Your task to perform on an android device: Search for "apple airpods pro" on target.com, select the first entry, add it to the cart, then select checkout. Image 0: 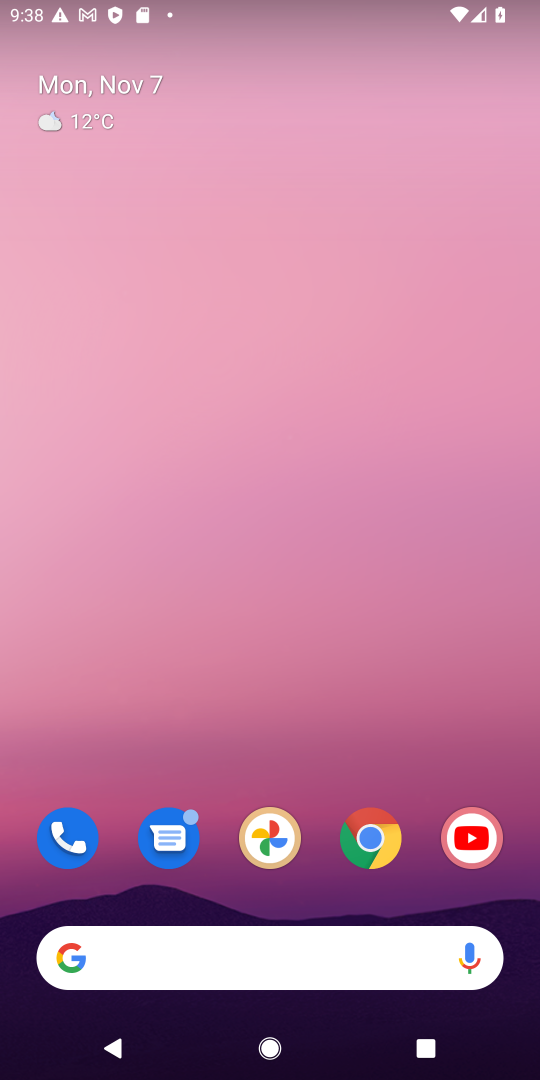
Step 0: click (361, 839)
Your task to perform on an android device: Search for "apple airpods pro" on target.com, select the first entry, add it to the cart, then select checkout. Image 1: 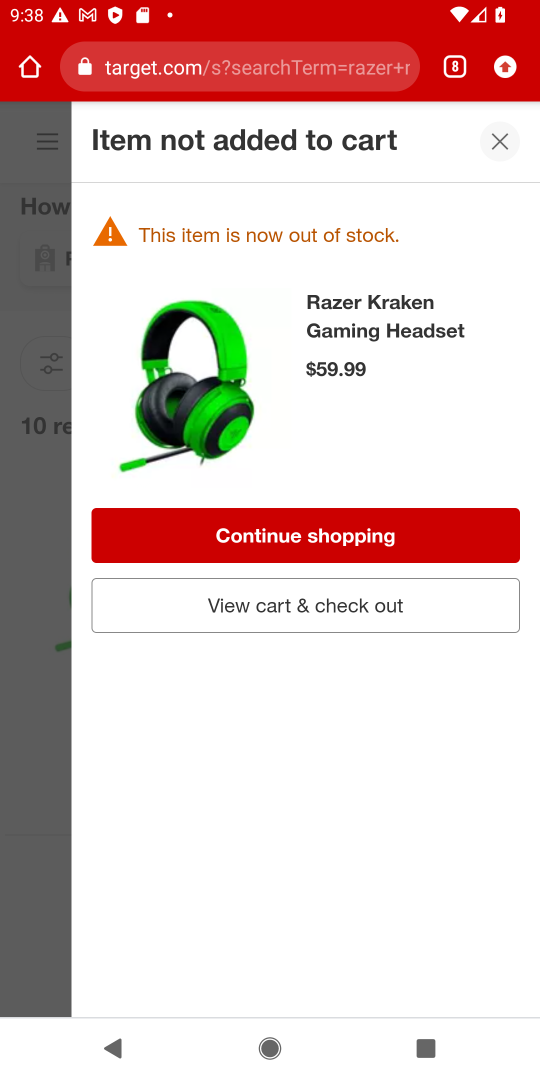
Step 1: click (494, 133)
Your task to perform on an android device: Search for "apple airpods pro" on target.com, select the first entry, add it to the cart, then select checkout. Image 2: 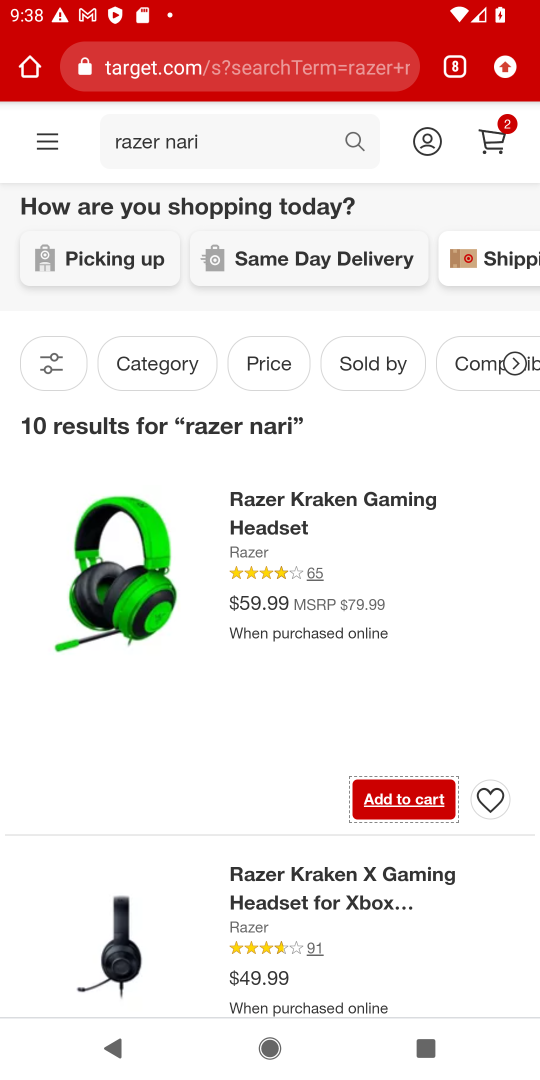
Step 2: click (245, 138)
Your task to perform on an android device: Search for "apple airpods pro" on target.com, select the first entry, add it to the cart, then select checkout. Image 3: 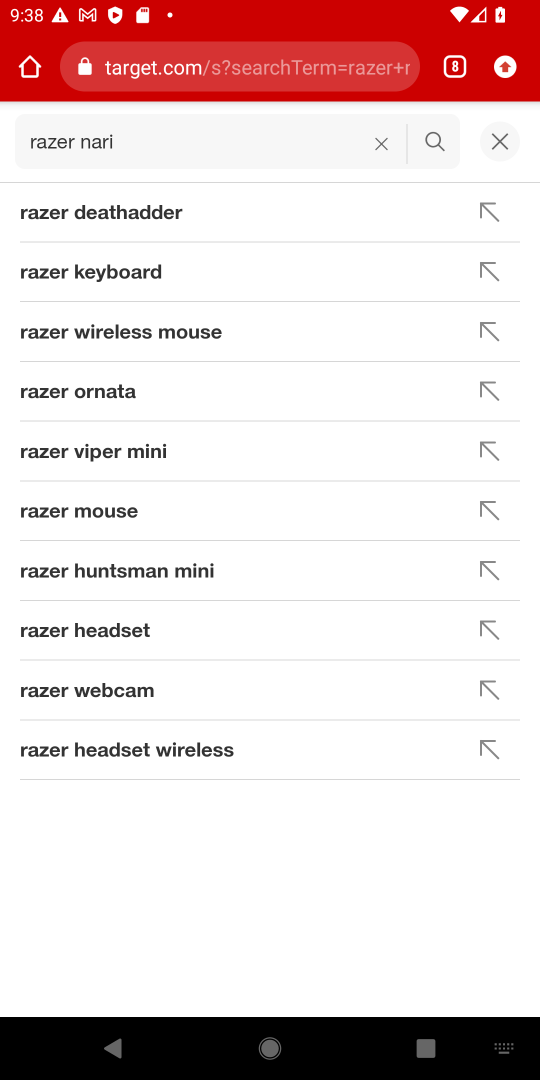
Step 3: click (385, 141)
Your task to perform on an android device: Search for "apple airpods pro" on target.com, select the first entry, add it to the cart, then select checkout. Image 4: 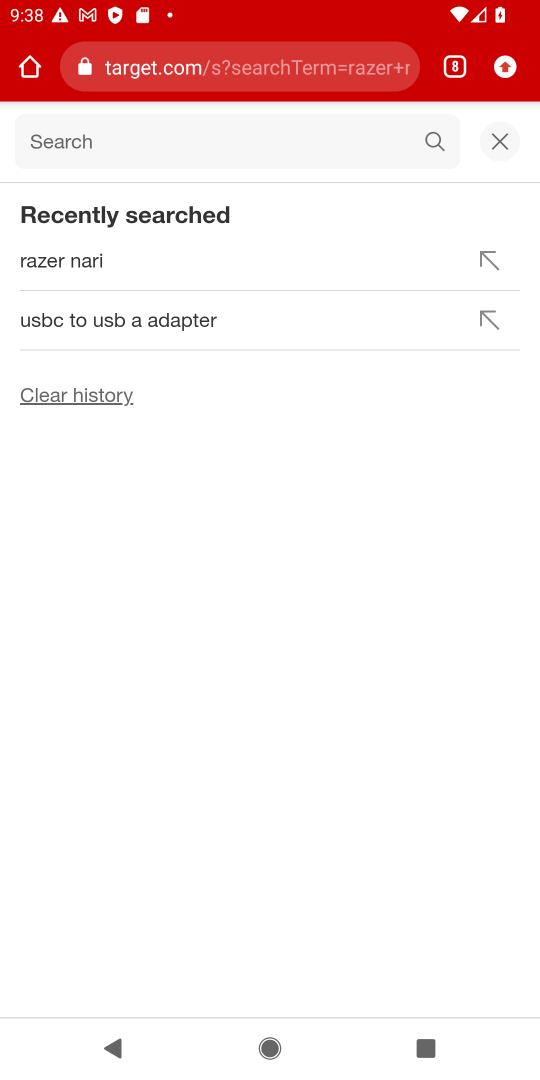
Step 4: type "apple airpods pro"
Your task to perform on an android device: Search for "apple airpods pro" on target.com, select the first entry, add it to the cart, then select checkout. Image 5: 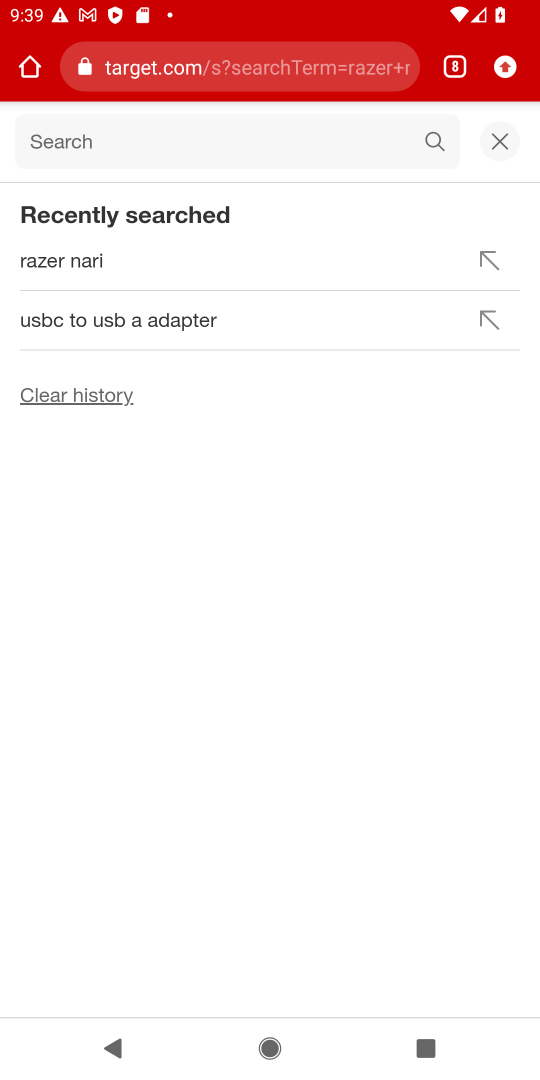
Step 5: click (80, 147)
Your task to perform on an android device: Search for "apple airpods pro" on target.com, select the first entry, add it to the cart, then select checkout. Image 6: 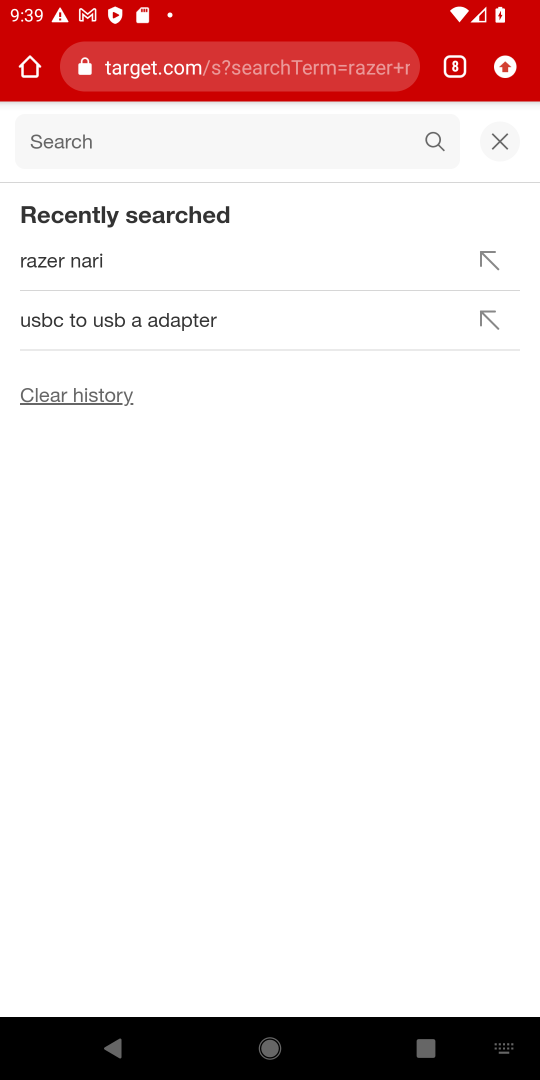
Step 6: type "apple airpods pro"
Your task to perform on an android device: Search for "apple airpods pro" on target.com, select the first entry, add it to the cart, then select checkout. Image 7: 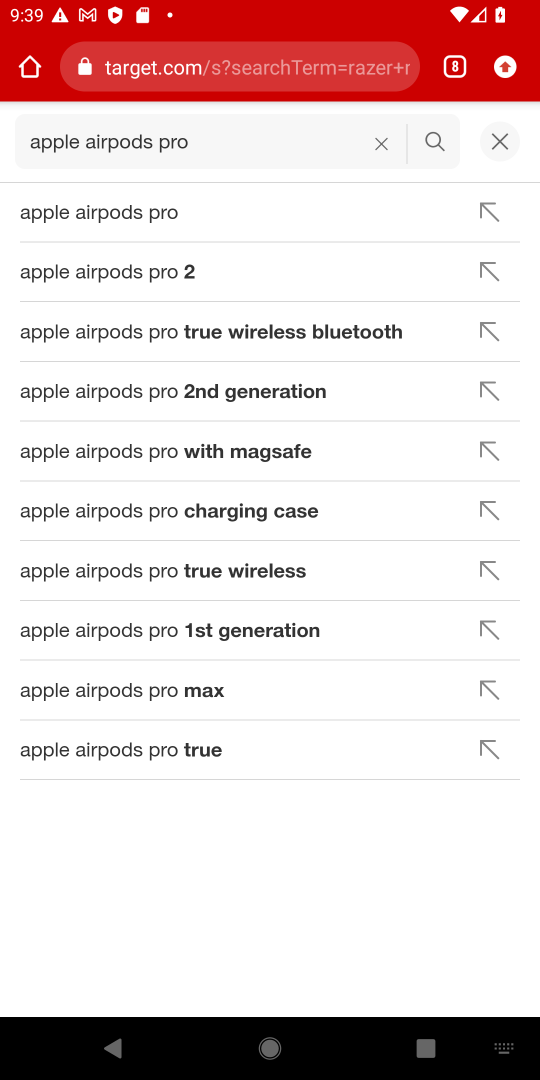
Step 7: click (168, 217)
Your task to perform on an android device: Search for "apple airpods pro" on target.com, select the first entry, add it to the cart, then select checkout. Image 8: 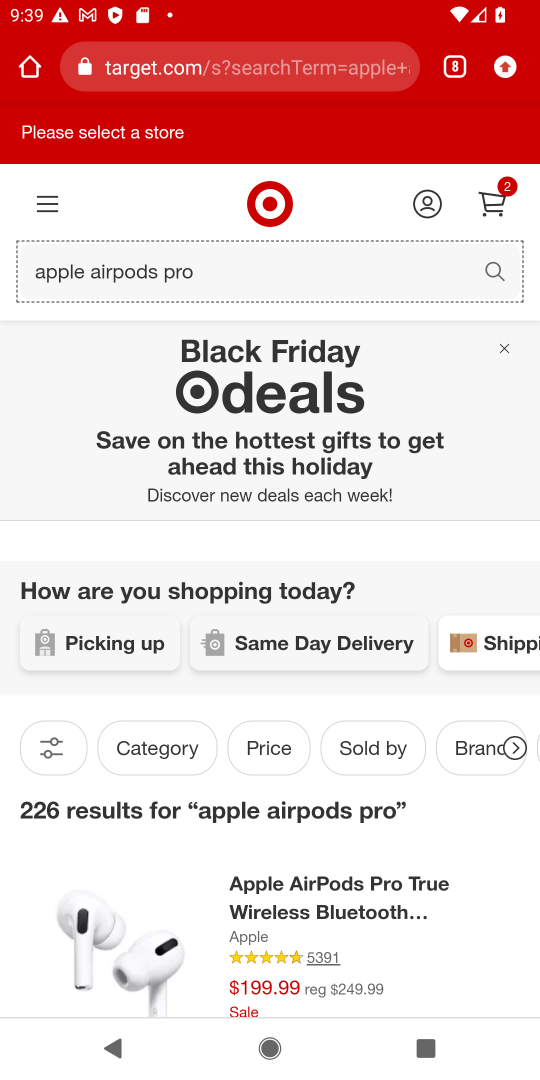
Step 8: drag from (370, 935) to (373, 530)
Your task to perform on an android device: Search for "apple airpods pro" on target.com, select the first entry, add it to the cart, then select checkout. Image 9: 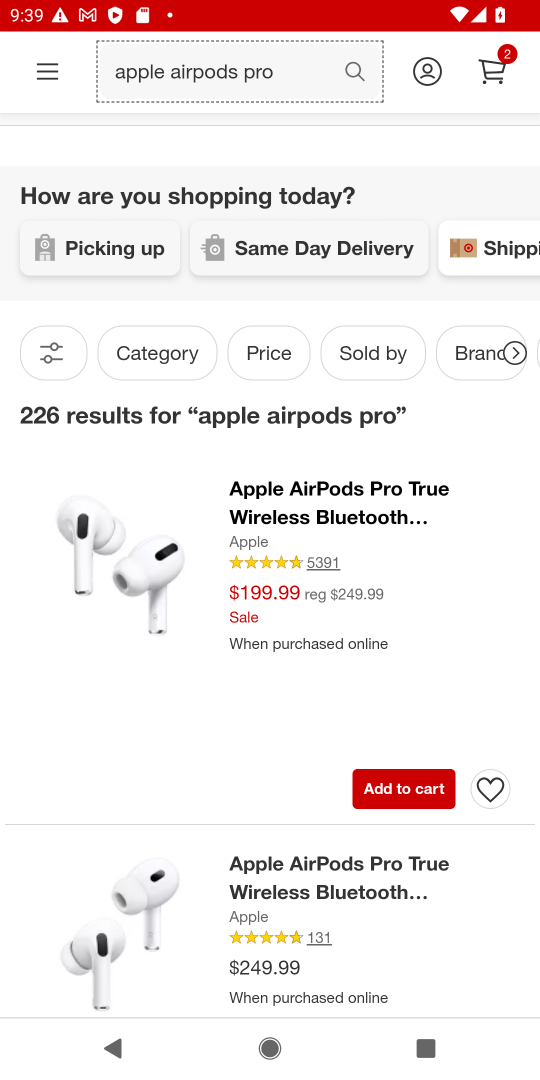
Step 9: click (406, 786)
Your task to perform on an android device: Search for "apple airpods pro" on target.com, select the first entry, add it to the cart, then select checkout. Image 10: 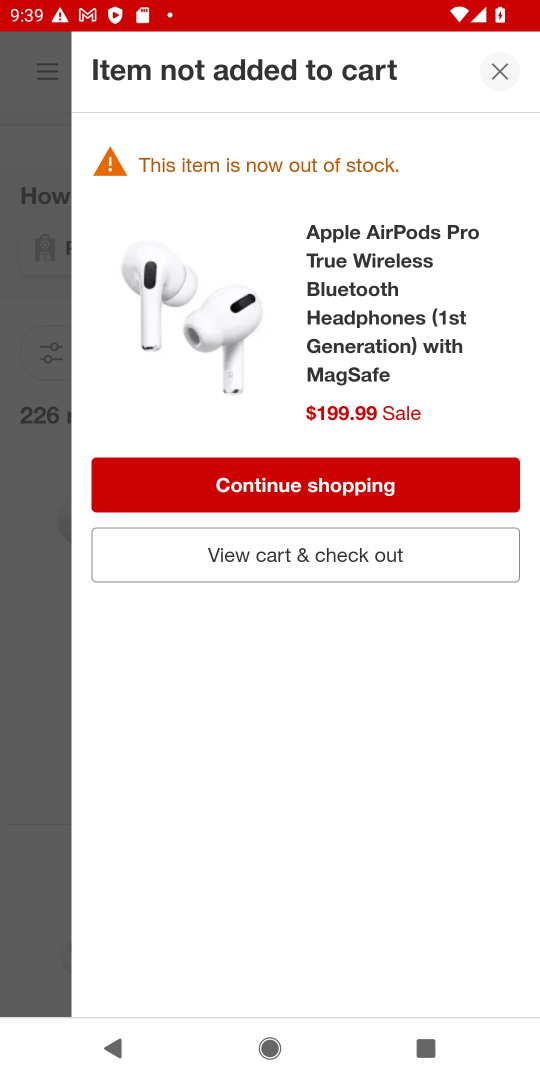
Step 10: click (351, 556)
Your task to perform on an android device: Search for "apple airpods pro" on target.com, select the first entry, add it to the cart, then select checkout. Image 11: 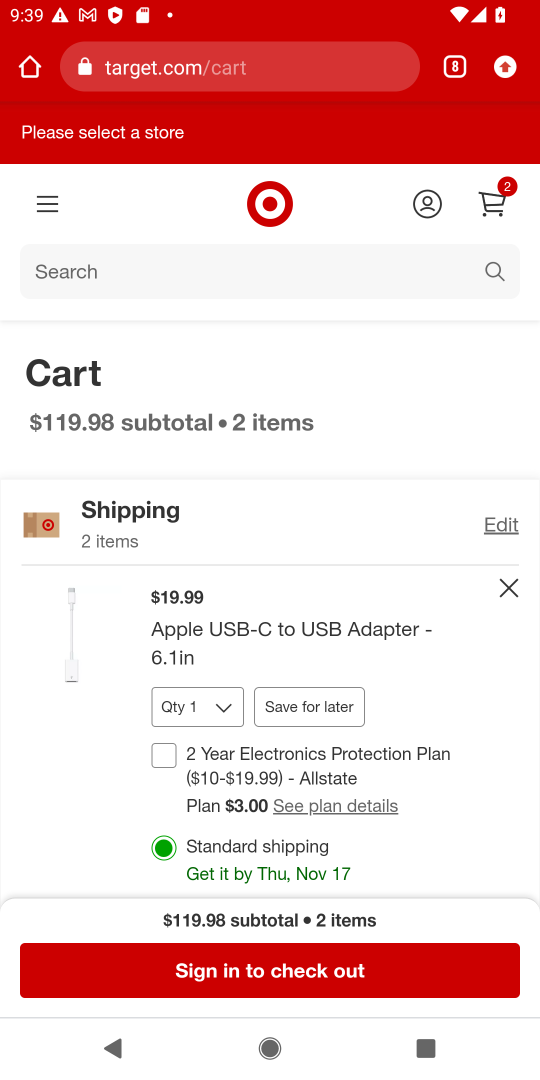
Step 11: task complete